Your task to perform on an android device: add a label to a message in the gmail app Image 0: 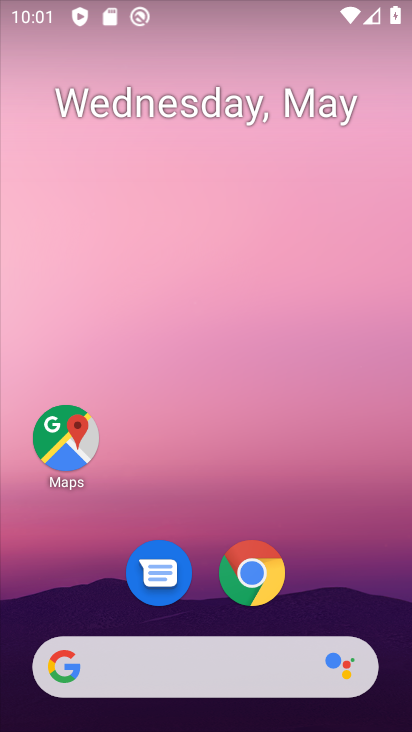
Step 0: drag from (254, 623) to (155, 85)
Your task to perform on an android device: add a label to a message in the gmail app Image 1: 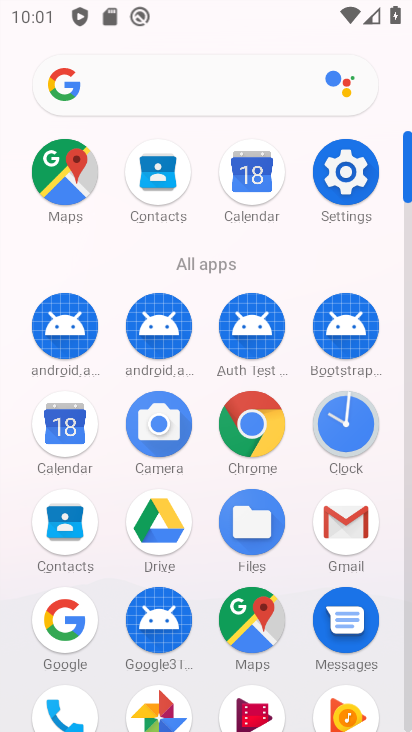
Step 1: click (340, 529)
Your task to perform on an android device: add a label to a message in the gmail app Image 2: 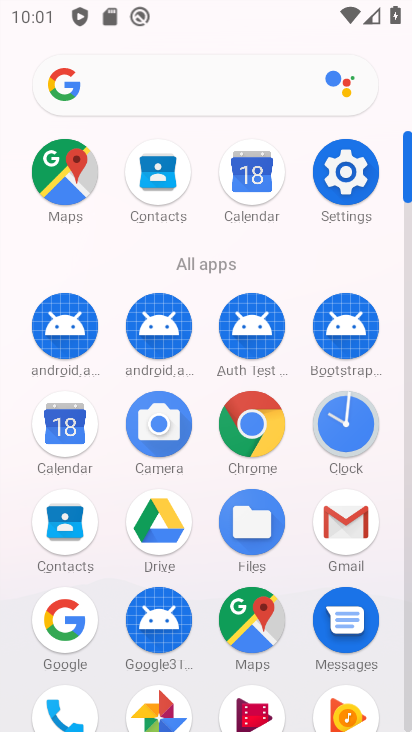
Step 2: click (341, 528)
Your task to perform on an android device: add a label to a message in the gmail app Image 3: 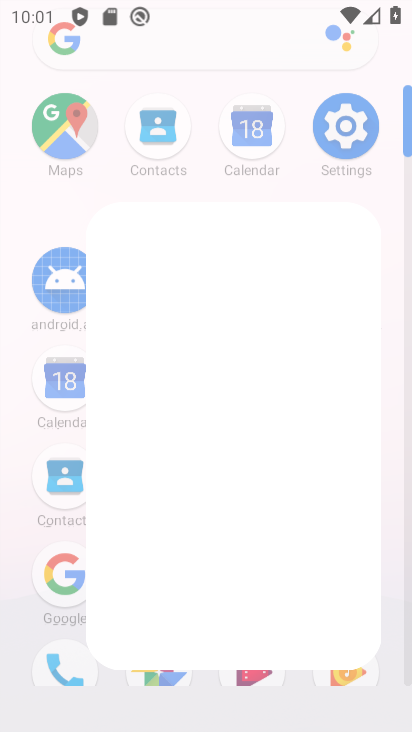
Step 3: click (341, 528)
Your task to perform on an android device: add a label to a message in the gmail app Image 4: 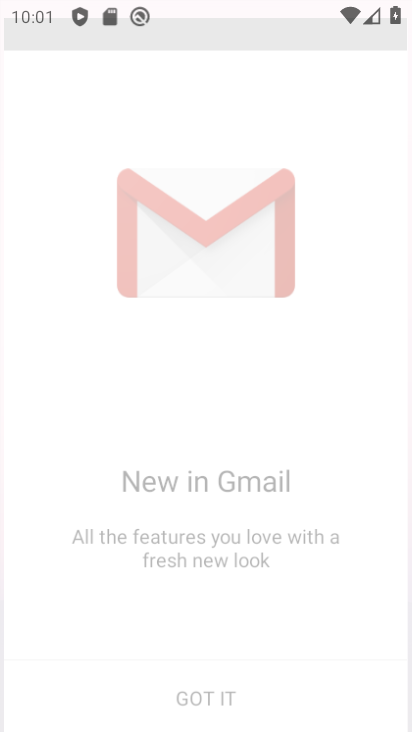
Step 4: click (341, 528)
Your task to perform on an android device: add a label to a message in the gmail app Image 5: 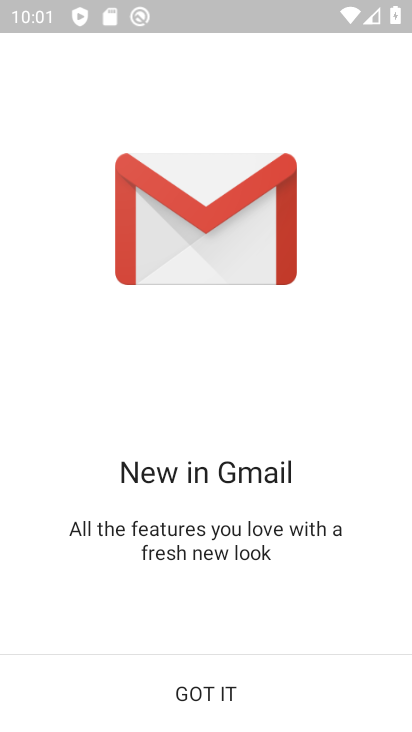
Step 5: click (212, 695)
Your task to perform on an android device: add a label to a message in the gmail app Image 6: 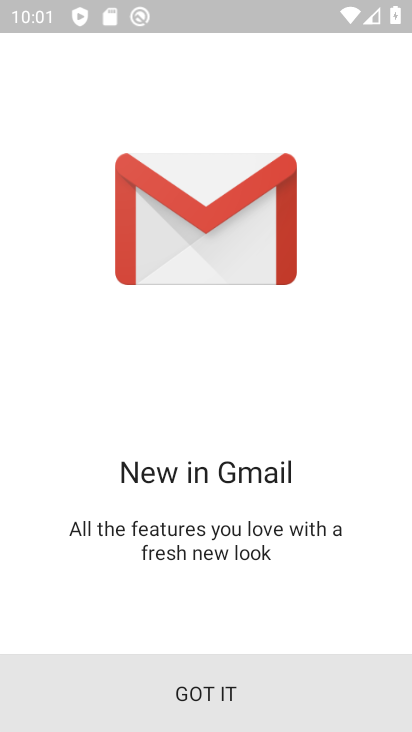
Step 6: click (212, 695)
Your task to perform on an android device: add a label to a message in the gmail app Image 7: 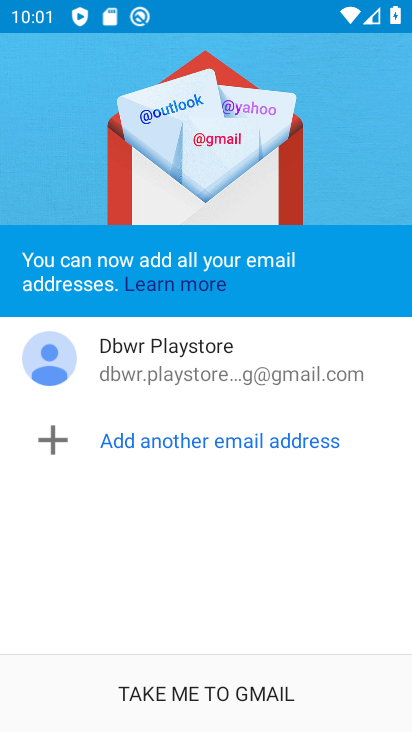
Step 7: click (217, 681)
Your task to perform on an android device: add a label to a message in the gmail app Image 8: 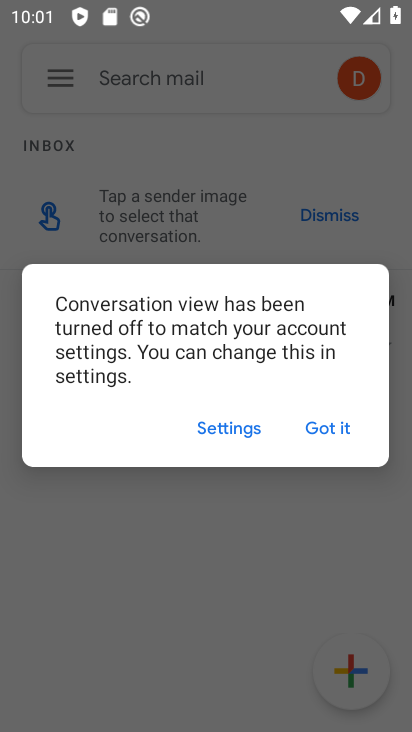
Step 8: click (249, 432)
Your task to perform on an android device: add a label to a message in the gmail app Image 9: 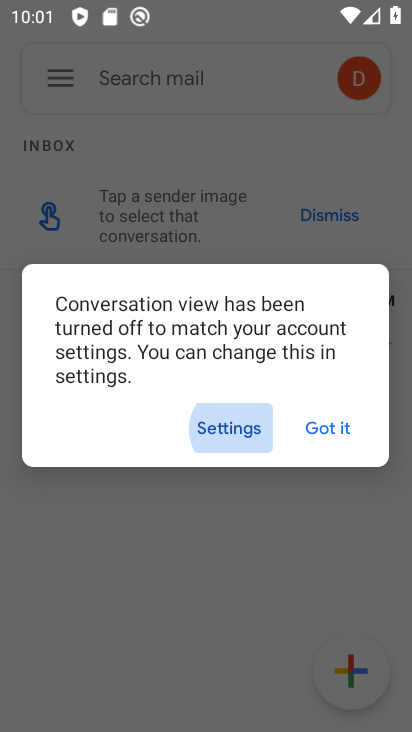
Step 9: click (249, 432)
Your task to perform on an android device: add a label to a message in the gmail app Image 10: 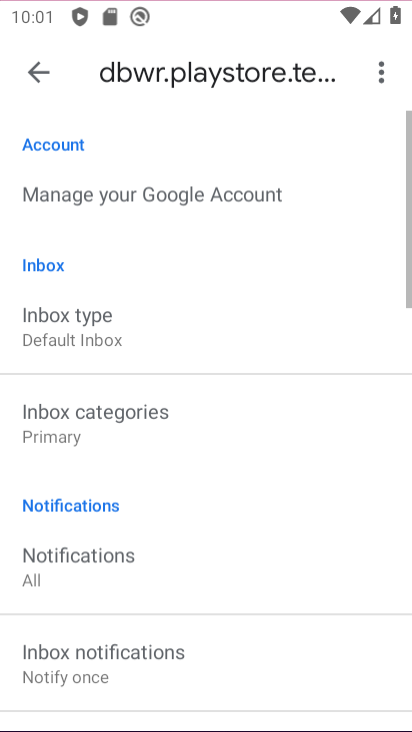
Step 10: click (246, 429)
Your task to perform on an android device: add a label to a message in the gmail app Image 11: 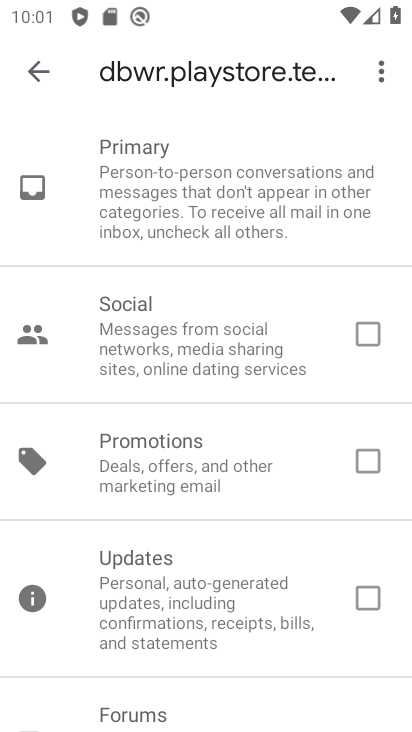
Step 11: click (28, 74)
Your task to perform on an android device: add a label to a message in the gmail app Image 12: 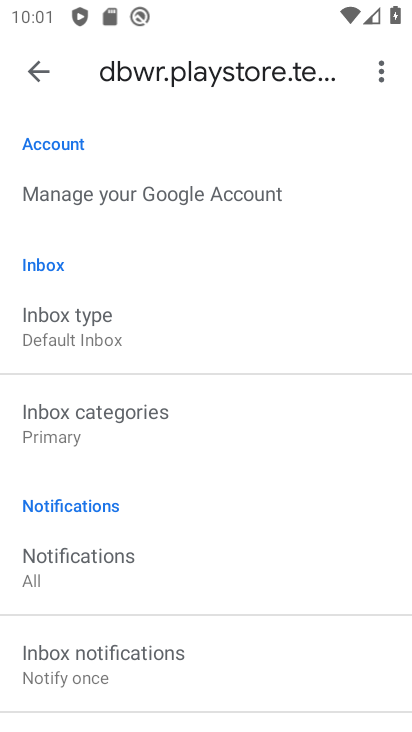
Step 12: click (120, 509)
Your task to perform on an android device: add a label to a message in the gmail app Image 13: 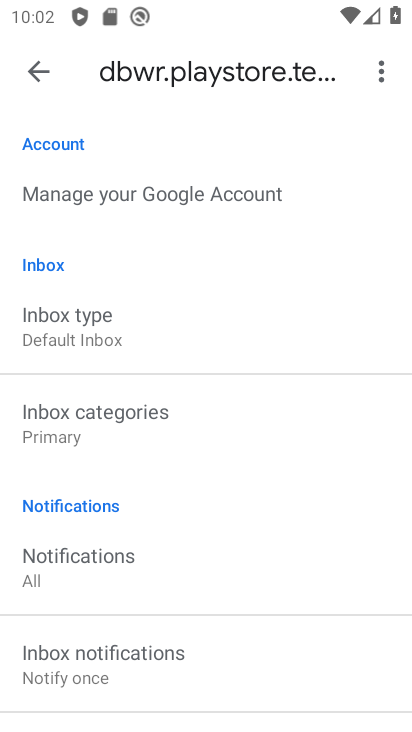
Step 13: drag from (153, 453) to (114, 136)
Your task to perform on an android device: add a label to a message in the gmail app Image 14: 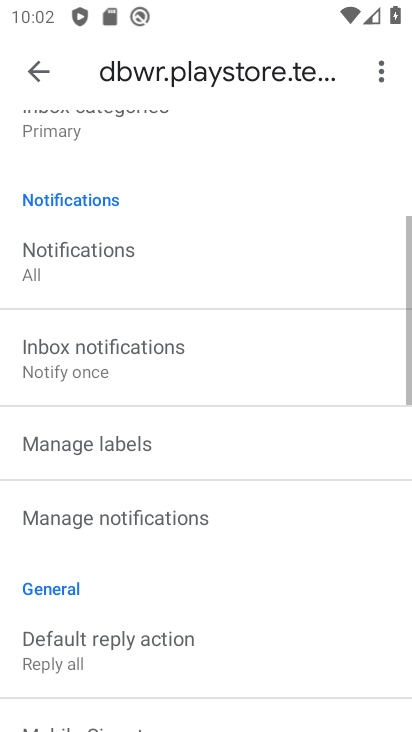
Step 14: drag from (183, 448) to (190, 98)
Your task to perform on an android device: add a label to a message in the gmail app Image 15: 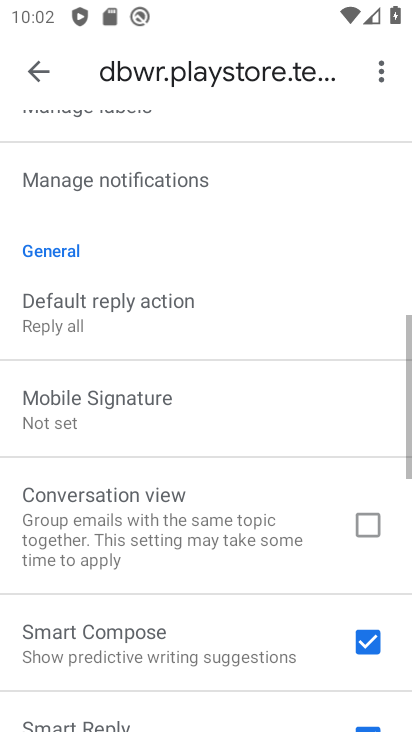
Step 15: drag from (238, 376) to (215, 92)
Your task to perform on an android device: add a label to a message in the gmail app Image 16: 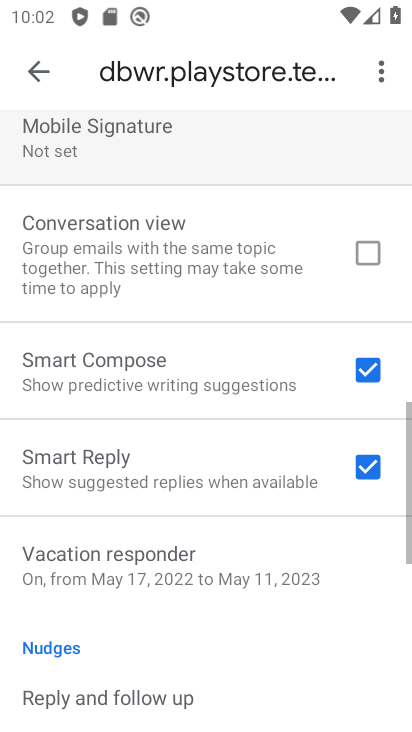
Step 16: drag from (208, 451) to (167, 77)
Your task to perform on an android device: add a label to a message in the gmail app Image 17: 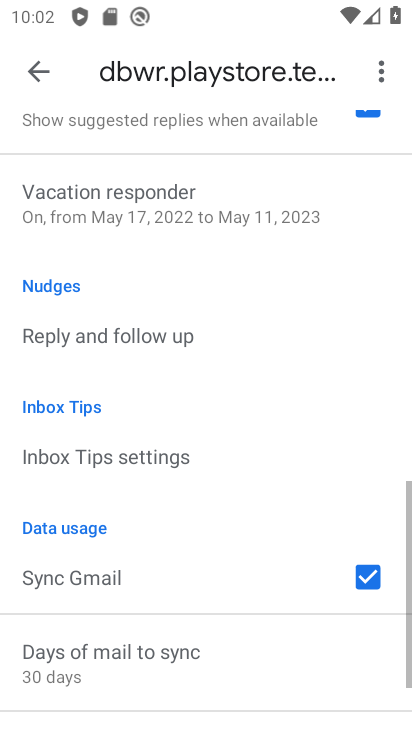
Step 17: drag from (272, 359) to (285, 141)
Your task to perform on an android device: add a label to a message in the gmail app Image 18: 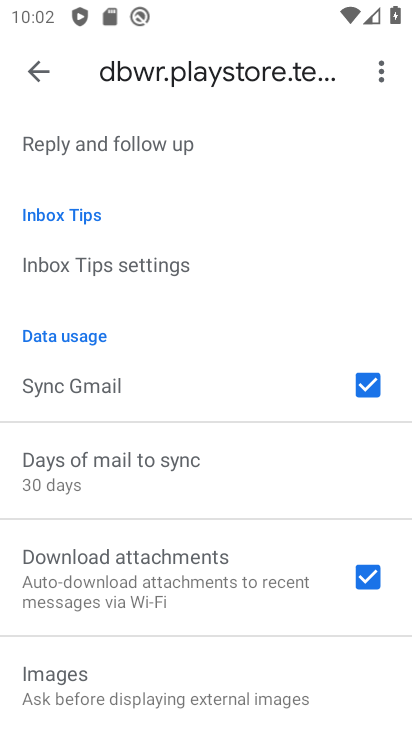
Step 18: drag from (160, 265) to (236, 550)
Your task to perform on an android device: add a label to a message in the gmail app Image 19: 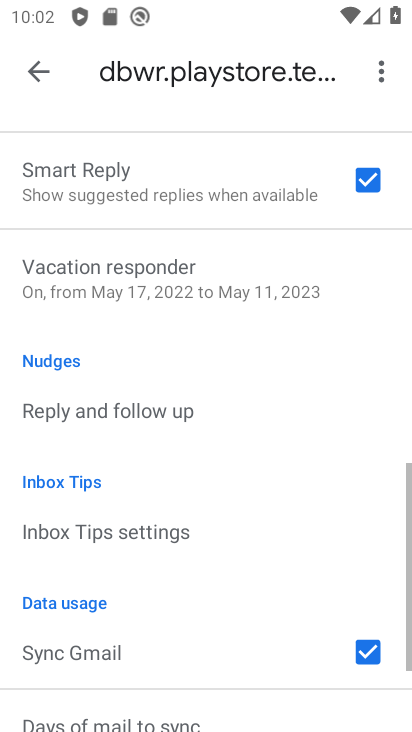
Step 19: drag from (196, 149) to (177, 568)
Your task to perform on an android device: add a label to a message in the gmail app Image 20: 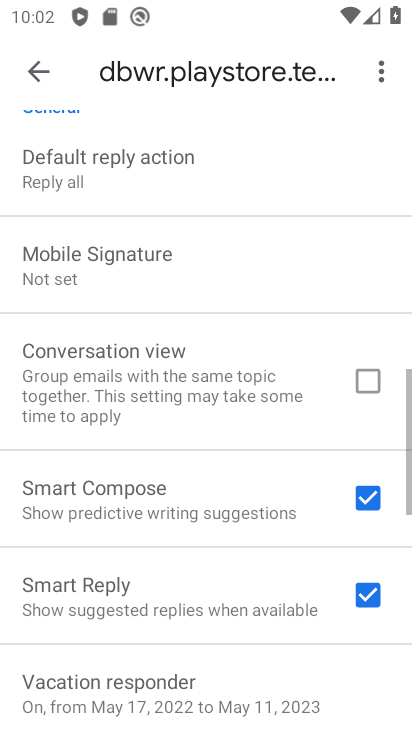
Step 20: drag from (80, 225) to (142, 512)
Your task to perform on an android device: add a label to a message in the gmail app Image 21: 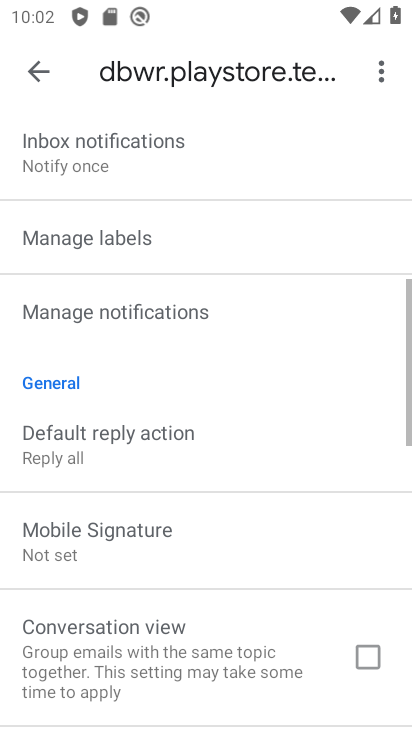
Step 21: click (33, 71)
Your task to perform on an android device: add a label to a message in the gmail app Image 22: 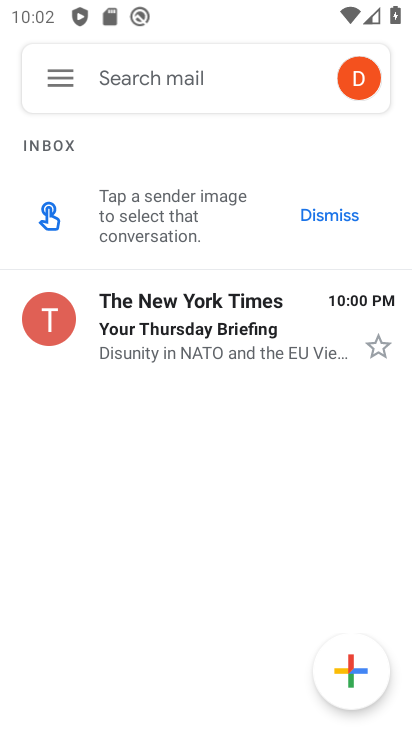
Step 22: click (202, 322)
Your task to perform on an android device: add a label to a message in the gmail app Image 23: 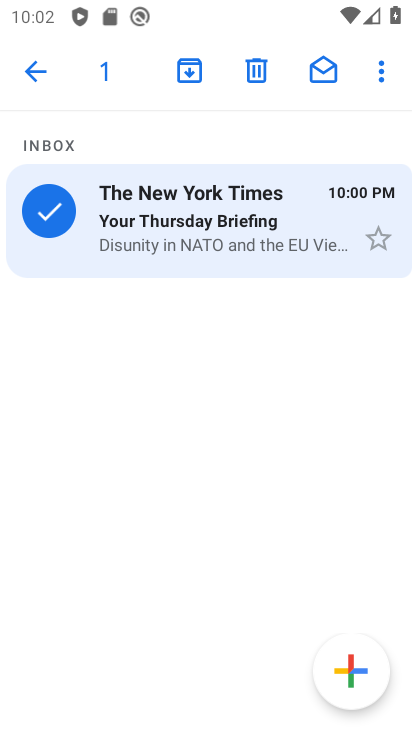
Step 23: click (381, 77)
Your task to perform on an android device: add a label to a message in the gmail app Image 24: 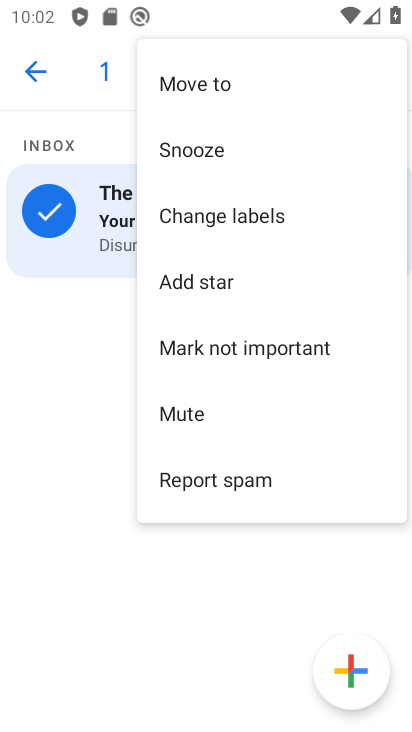
Step 24: click (195, 282)
Your task to perform on an android device: add a label to a message in the gmail app Image 25: 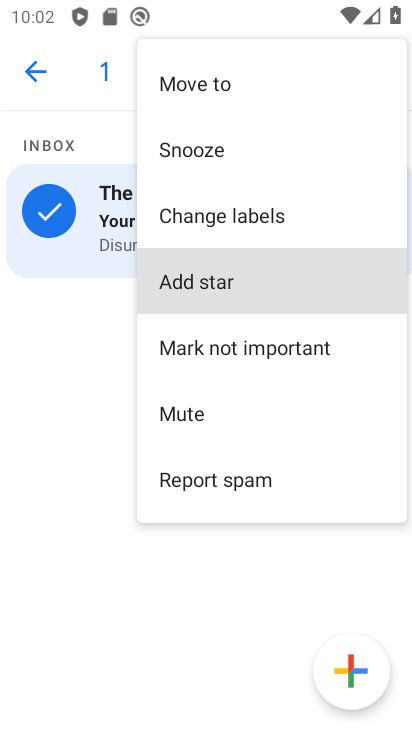
Step 25: click (195, 282)
Your task to perform on an android device: add a label to a message in the gmail app Image 26: 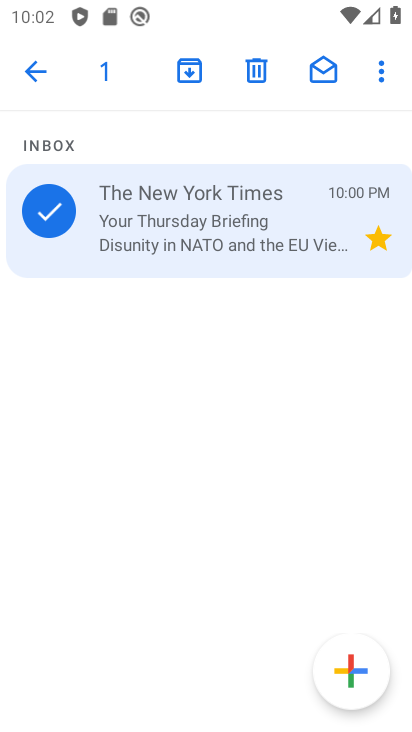
Step 26: click (292, 242)
Your task to perform on an android device: add a label to a message in the gmail app Image 27: 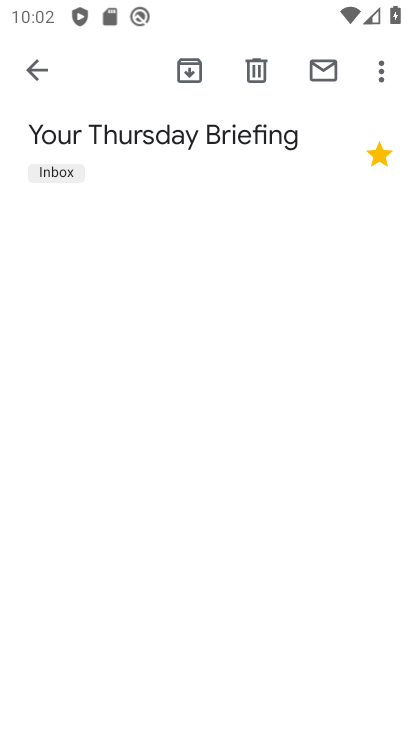
Step 27: click (89, 358)
Your task to perform on an android device: add a label to a message in the gmail app Image 28: 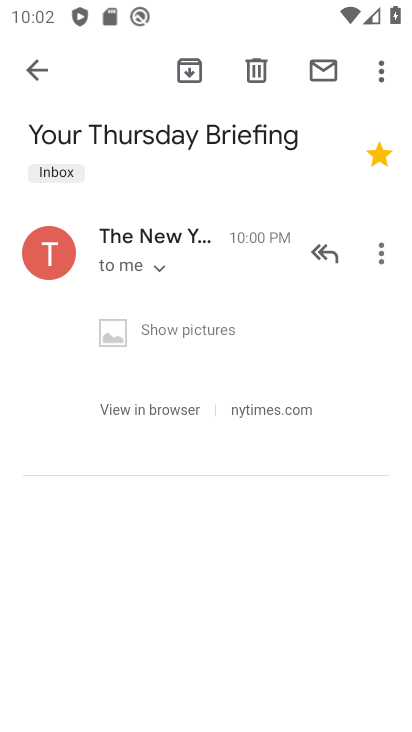
Step 28: task complete